Your task to perform on an android device: Search for Mexican restaurants on Maps Image 0: 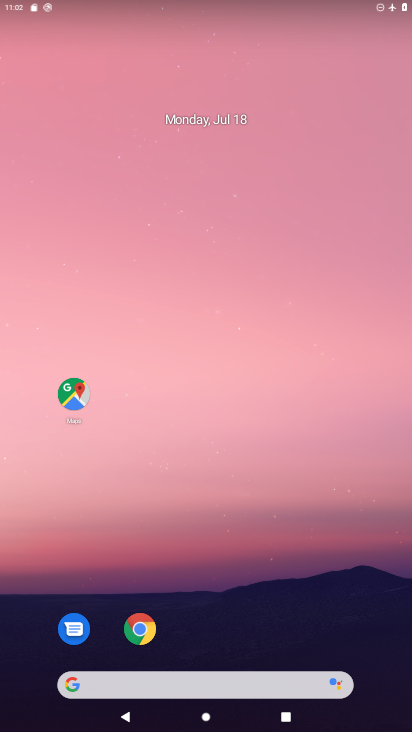
Step 0: drag from (322, 616) to (240, 54)
Your task to perform on an android device: Search for Mexican restaurants on Maps Image 1: 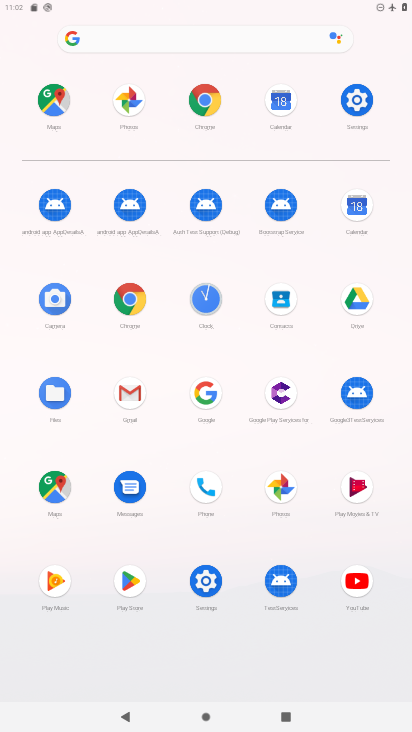
Step 1: click (46, 103)
Your task to perform on an android device: Search for Mexican restaurants on Maps Image 2: 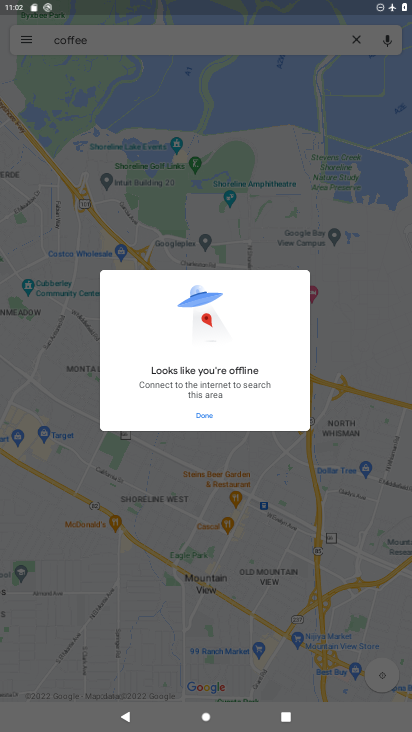
Step 2: click (214, 406)
Your task to perform on an android device: Search for Mexican restaurants on Maps Image 3: 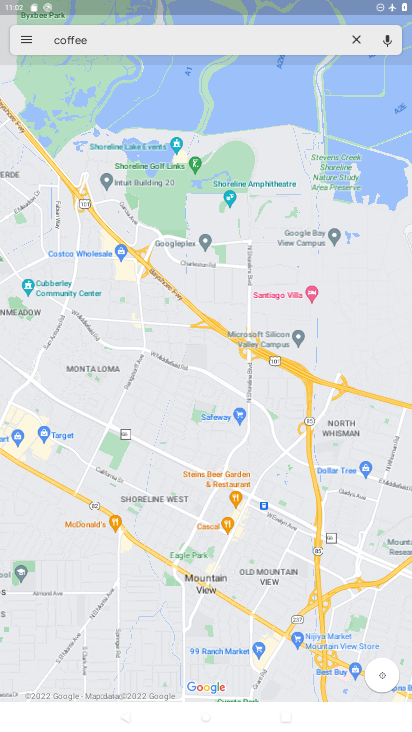
Step 3: click (355, 45)
Your task to perform on an android device: Search for Mexican restaurants on Maps Image 4: 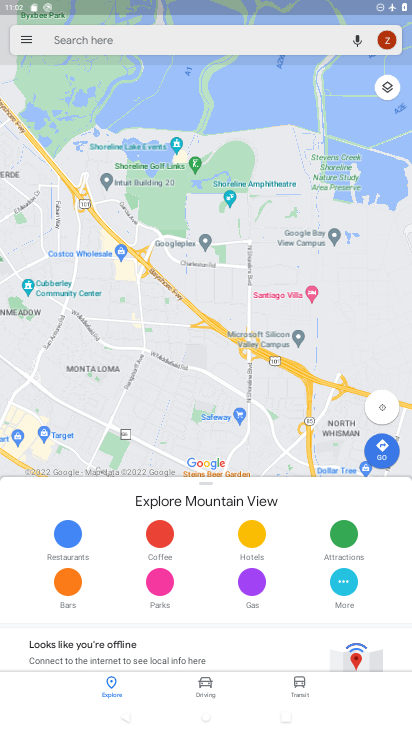
Step 4: click (233, 31)
Your task to perform on an android device: Search for Mexican restaurants on Maps Image 5: 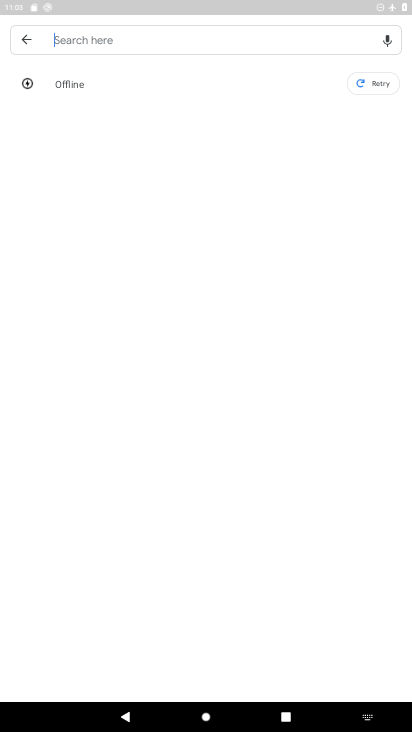
Step 5: type "Mexican restaurants"
Your task to perform on an android device: Search for Mexican restaurants on Maps Image 6: 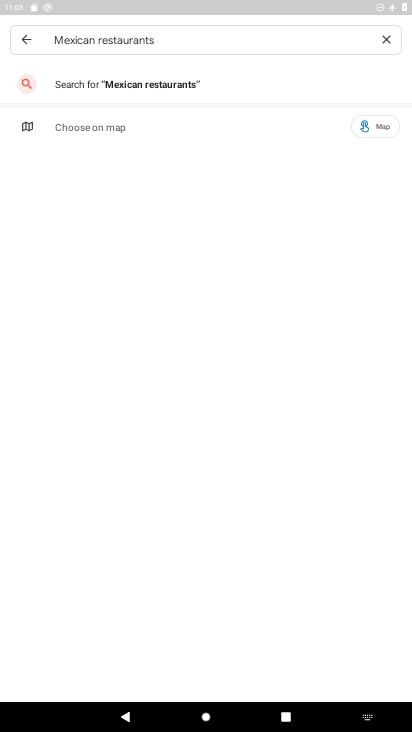
Step 6: press enter
Your task to perform on an android device: Search for Mexican restaurants on Maps Image 7: 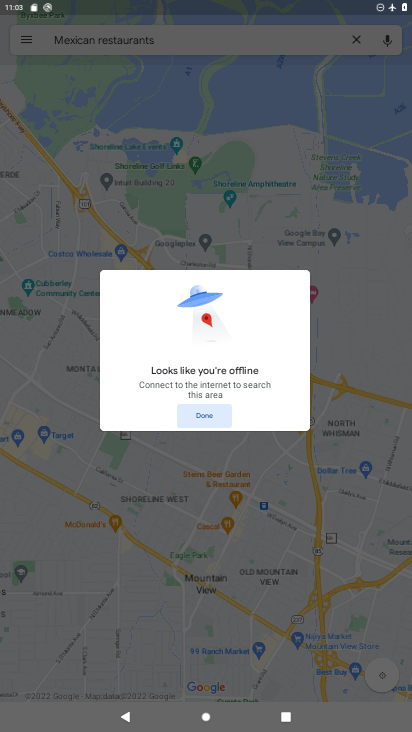
Step 7: task complete